Your task to perform on an android device: show emergency info Image 0: 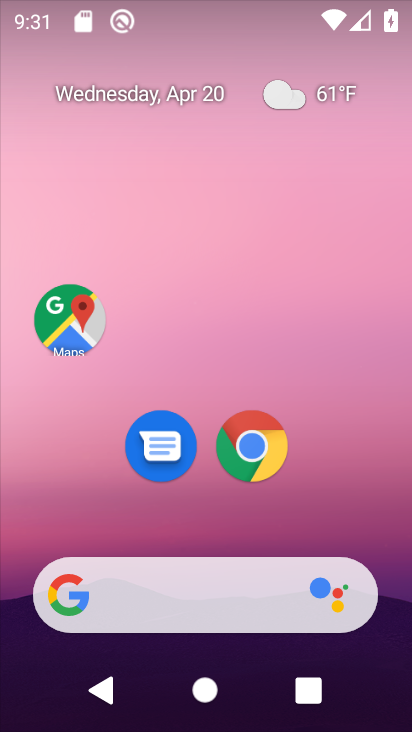
Step 0: drag from (373, 504) to (339, 111)
Your task to perform on an android device: show emergency info Image 1: 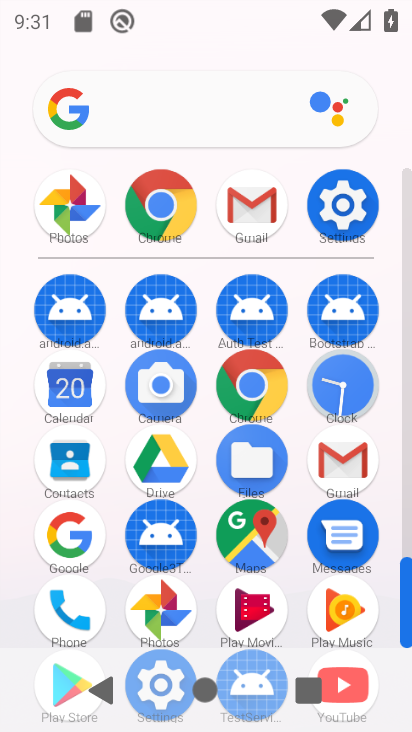
Step 1: click (356, 204)
Your task to perform on an android device: show emergency info Image 2: 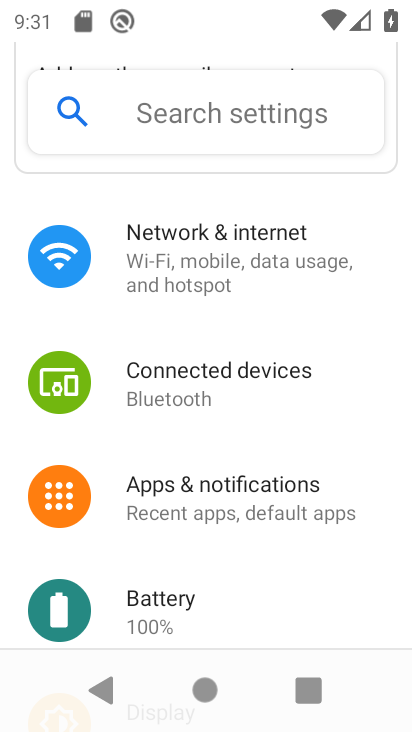
Step 2: drag from (298, 566) to (280, 259)
Your task to perform on an android device: show emergency info Image 3: 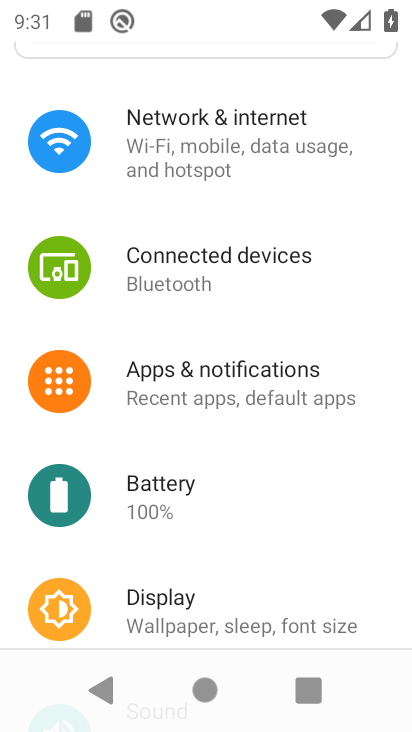
Step 3: drag from (321, 478) to (341, 239)
Your task to perform on an android device: show emergency info Image 4: 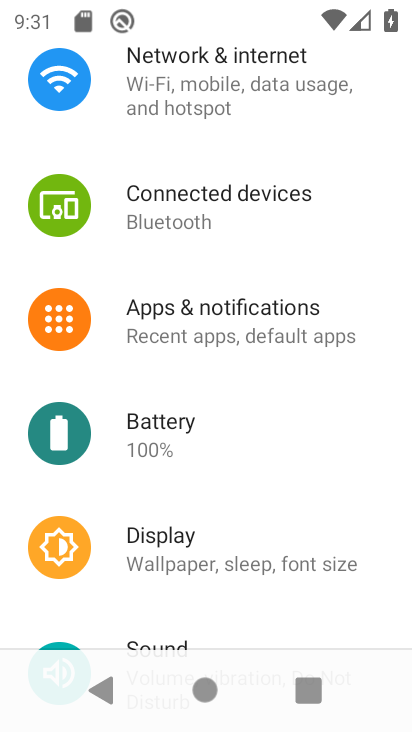
Step 4: drag from (306, 587) to (334, 330)
Your task to perform on an android device: show emergency info Image 5: 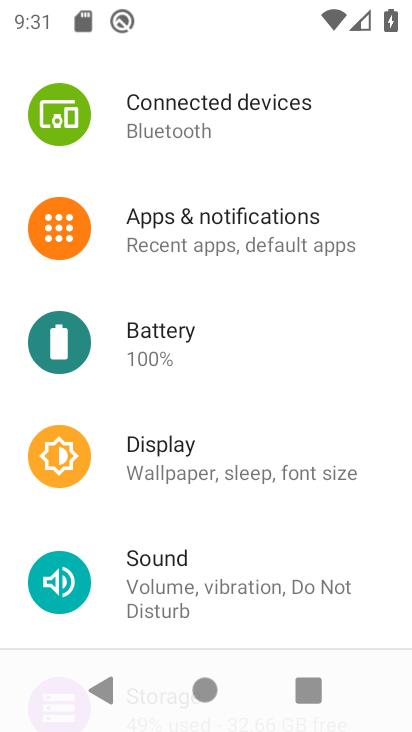
Step 5: drag from (320, 501) to (317, 311)
Your task to perform on an android device: show emergency info Image 6: 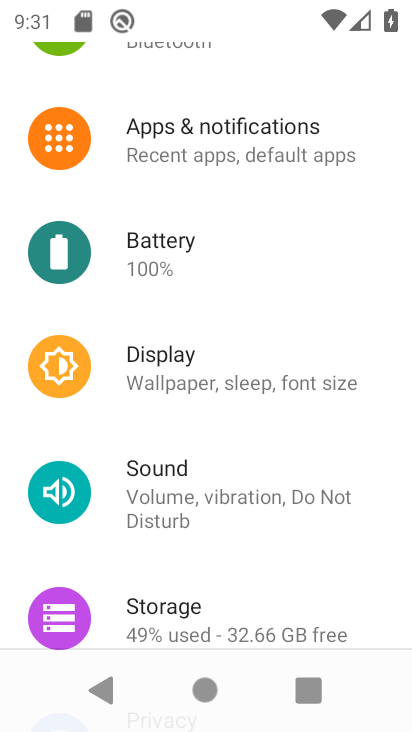
Step 6: drag from (311, 540) to (326, 274)
Your task to perform on an android device: show emergency info Image 7: 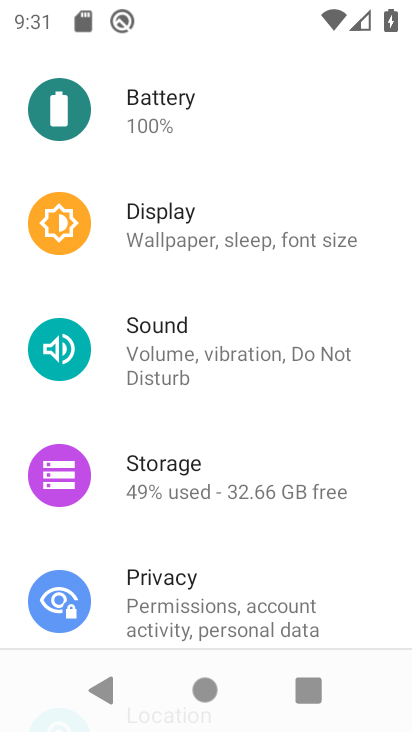
Step 7: drag from (307, 604) to (329, 247)
Your task to perform on an android device: show emergency info Image 8: 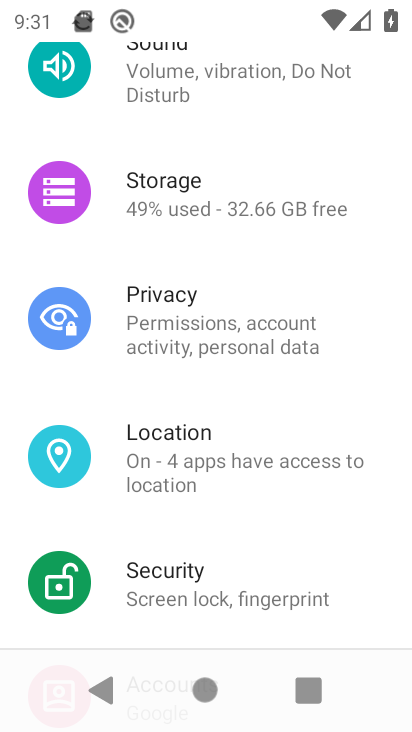
Step 8: drag from (287, 586) to (313, 230)
Your task to perform on an android device: show emergency info Image 9: 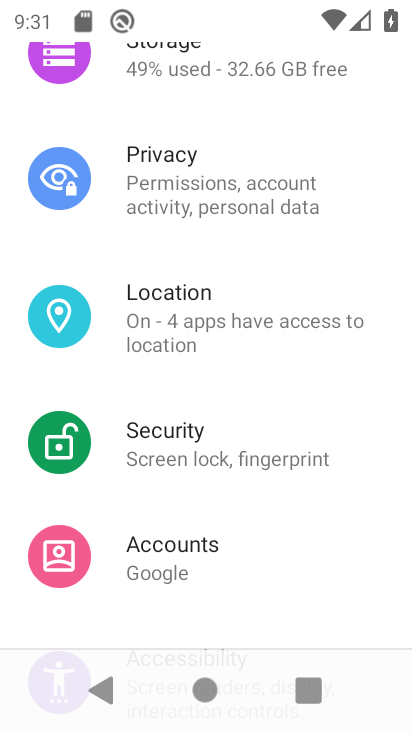
Step 9: drag from (295, 563) to (319, 201)
Your task to perform on an android device: show emergency info Image 10: 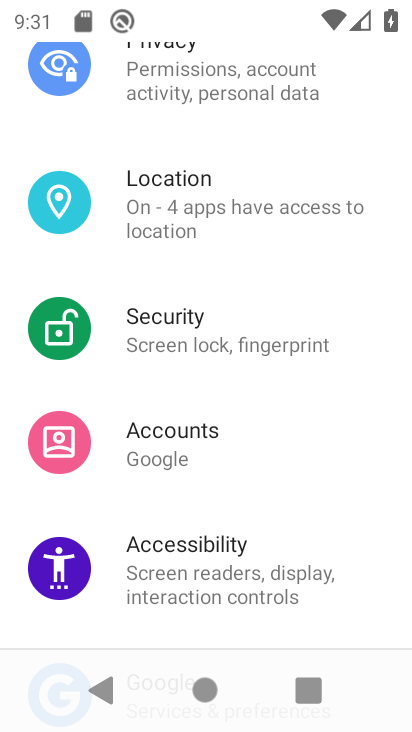
Step 10: drag from (291, 551) to (301, 123)
Your task to perform on an android device: show emergency info Image 11: 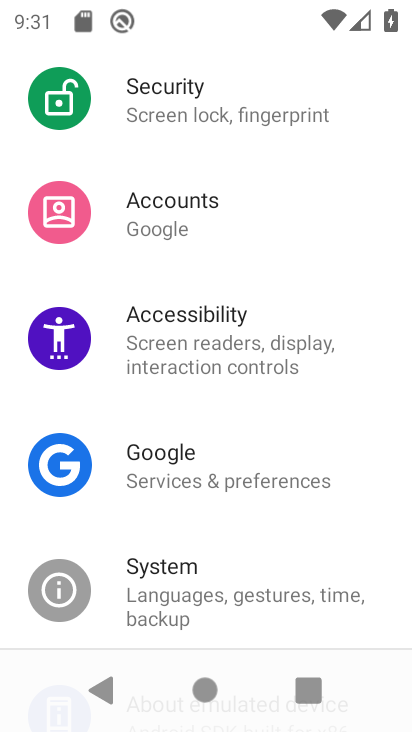
Step 11: drag from (294, 502) to (331, 237)
Your task to perform on an android device: show emergency info Image 12: 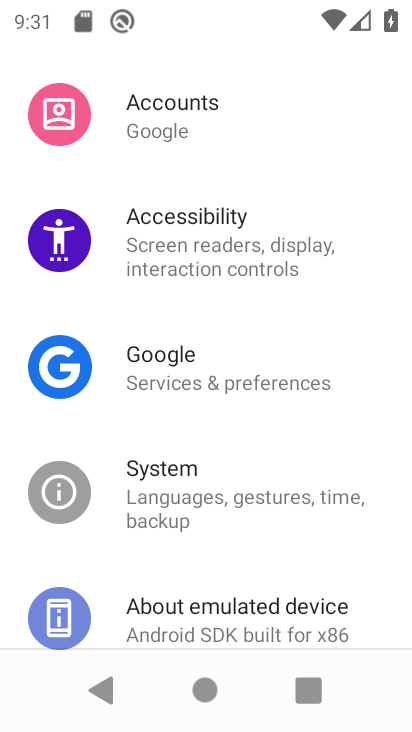
Step 12: click (224, 625)
Your task to perform on an android device: show emergency info Image 13: 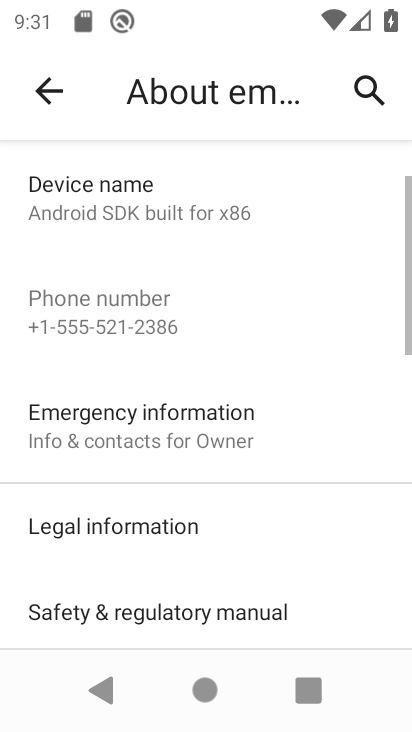
Step 13: task complete